Your task to perform on an android device: open device folders in google photos Image 0: 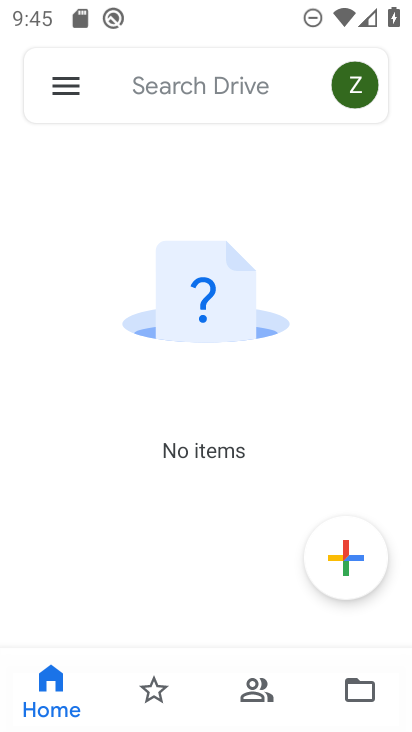
Step 0: press home button
Your task to perform on an android device: open device folders in google photos Image 1: 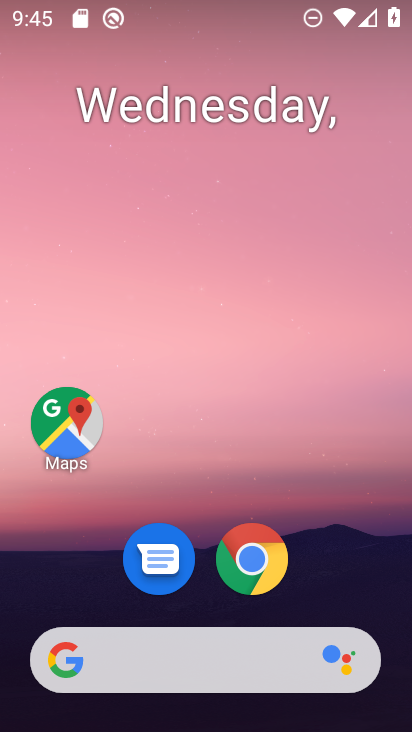
Step 1: drag from (351, 590) to (387, 186)
Your task to perform on an android device: open device folders in google photos Image 2: 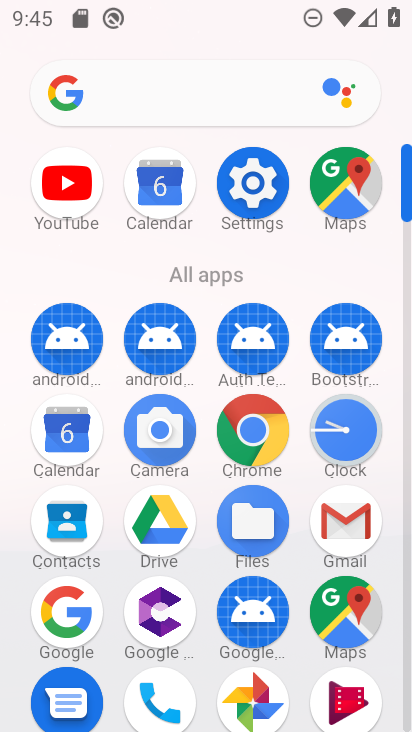
Step 2: drag from (389, 671) to (400, 382)
Your task to perform on an android device: open device folders in google photos Image 3: 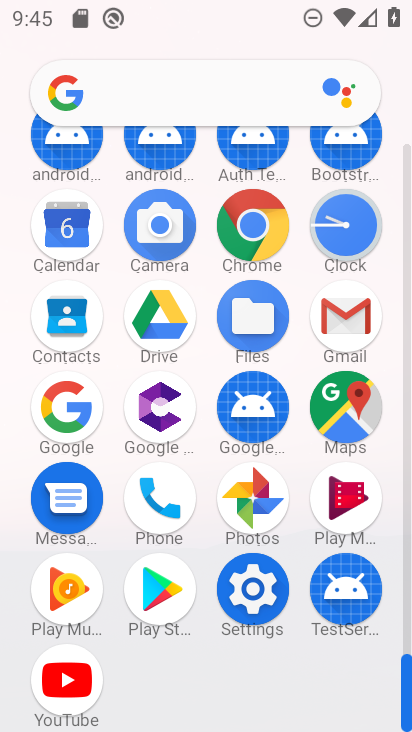
Step 3: click (265, 499)
Your task to perform on an android device: open device folders in google photos Image 4: 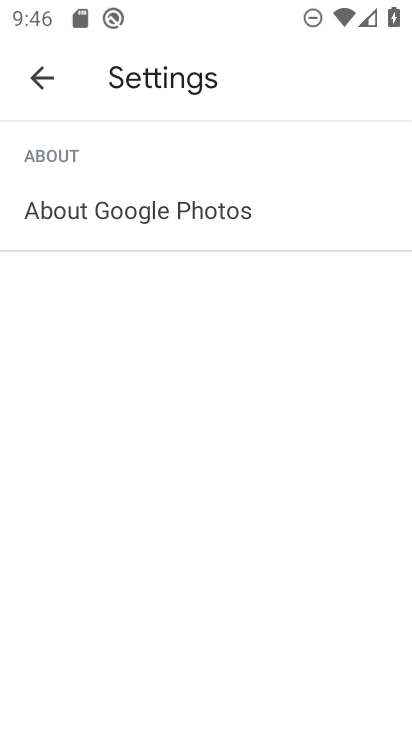
Step 4: press back button
Your task to perform on an android device: open device folders in google photos Image 5: 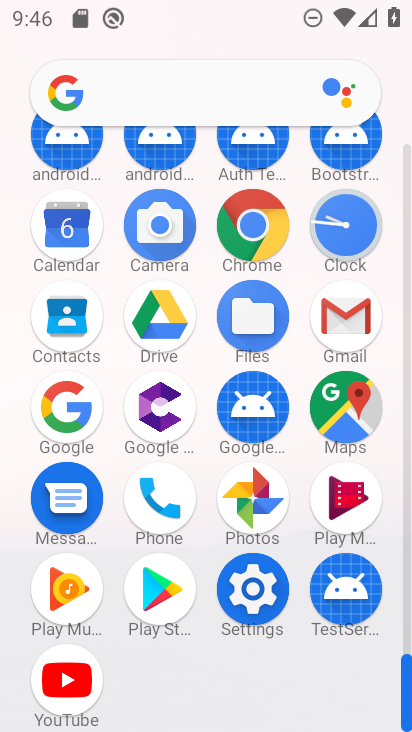
Step 5: click (267, 502)
Your task to perform on an android device: open device folders in google photos Image 6: 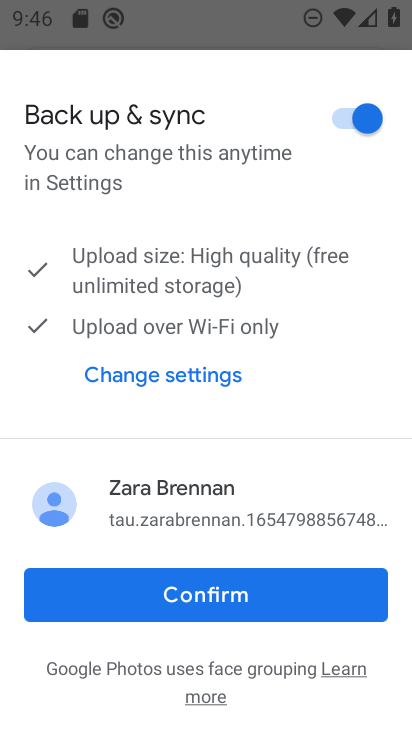
Step 6: click (217, 595)
Your task to perform on an android device: open device folders in google photos Image 7: 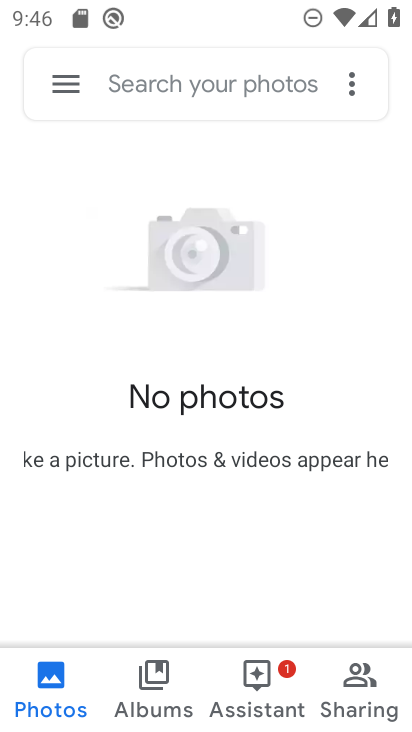
Step 7: click (67, 88)
Your task to perform on an android device: open device folders in google photos Image 8: 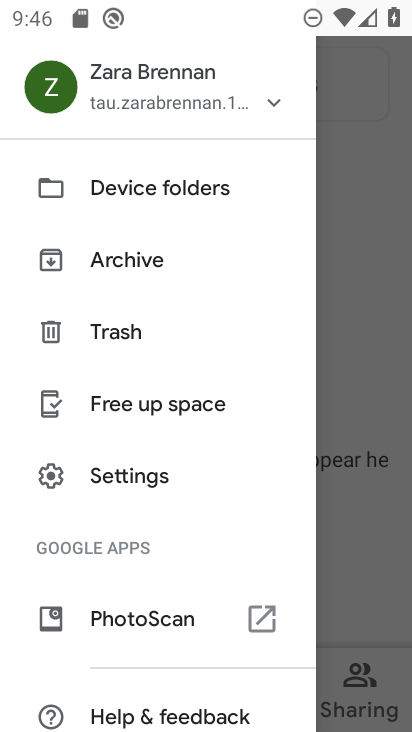
Step 8: drag from (248, 476) to (254, 378)
Your task to perform on an android device: open device folders in google photos Image 9: 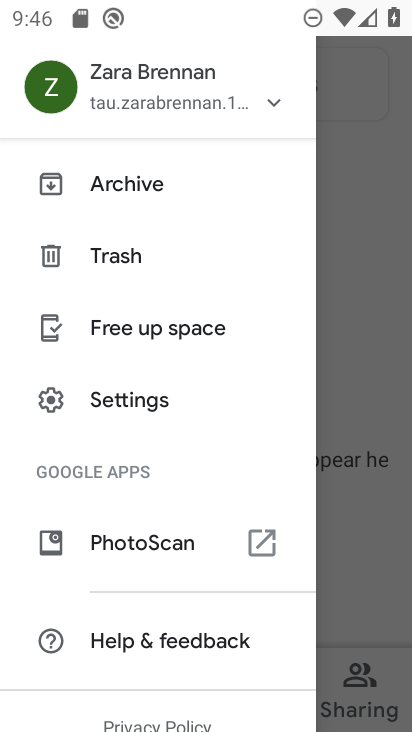
Step 9: drag from (243, 429) to (247, 242)
Your task to perform on an android device: open device folders in google photos Image 10: 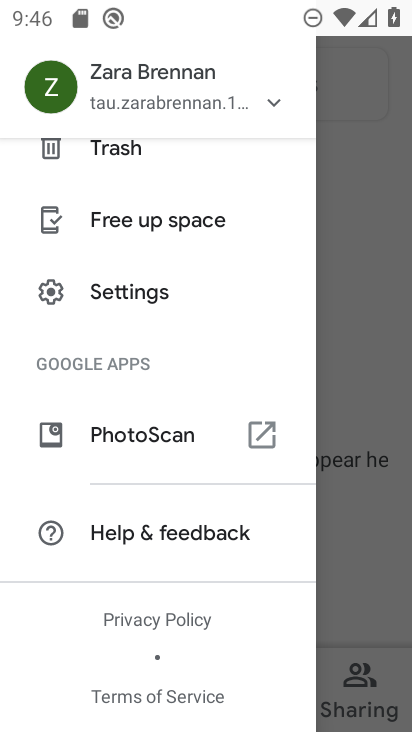
Step 10: drag from (250, 180) to (249, 287)
Your task to perform on an android device: open device folders in google photos Image 11: 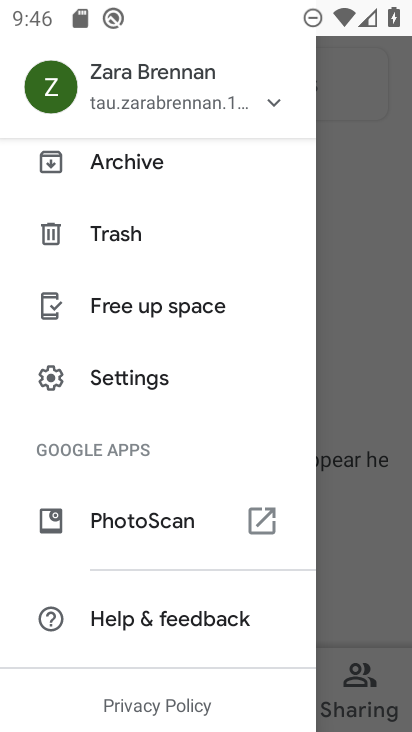
Step 11: drag from (248, 196) to (258, 341)
Your task to perform on an android device: open device folders in google photos Image 12: 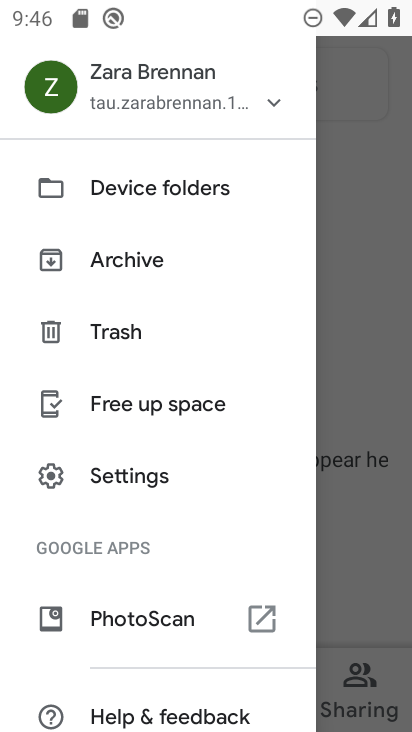
Step 12: click (209, 191)
Your task to perform on an android device: open device folders in google photos Image 13: 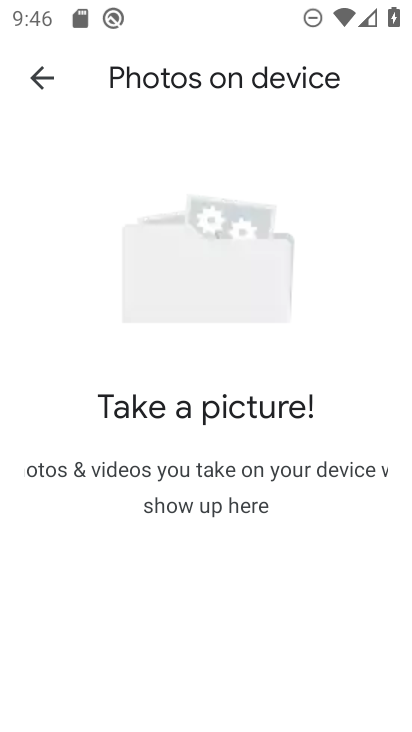
Step 13: task complete